Your task to perform on an android device: turn off priority inbox in the gmail app Image 0: 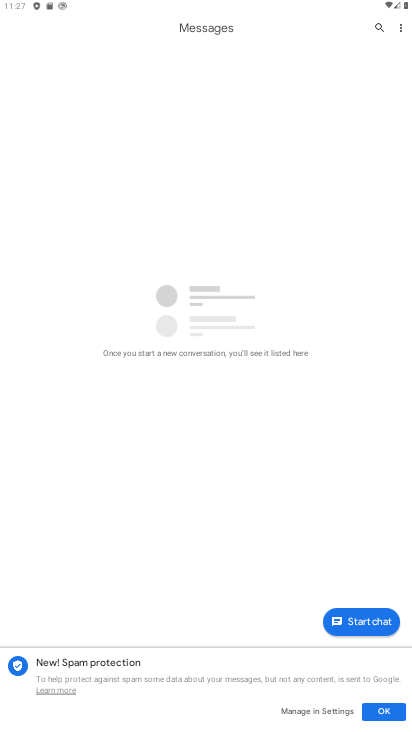
Step 0: press home button
Your task to perform on an android device: turn off priority inbox in the gmail app Image 1: 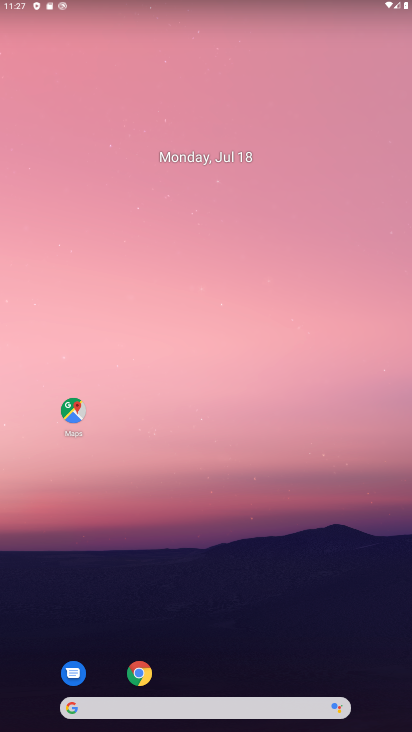
Step 1: drag from (292, 653) to (239, 1)
Your task to perform on an android device: turn off priority inbox in the gmail app Image 2: 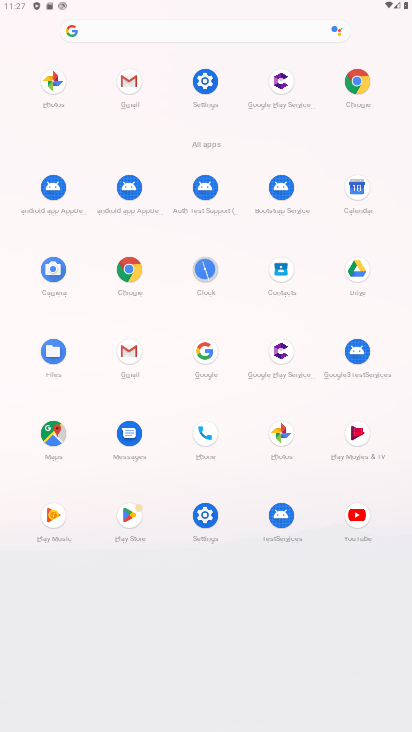
Step 2: click (127, 82)
Your task to perform on an android device: turn off priority inbox in the gmail app Image 3: 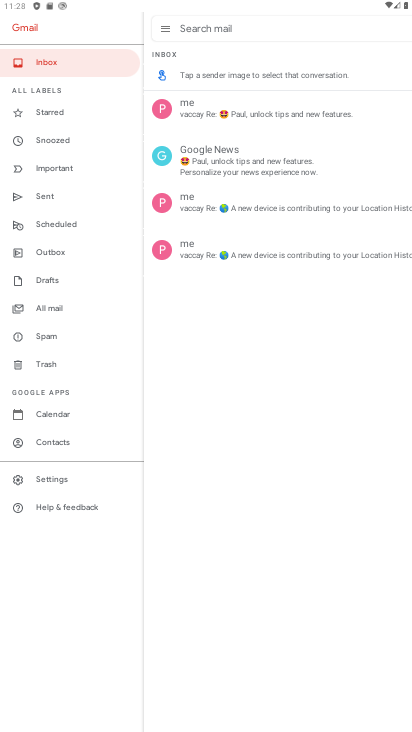
Step 3: click (80, 472)
Your task to perform on an android device: turn off priority inbox in the gmail app Image 4: 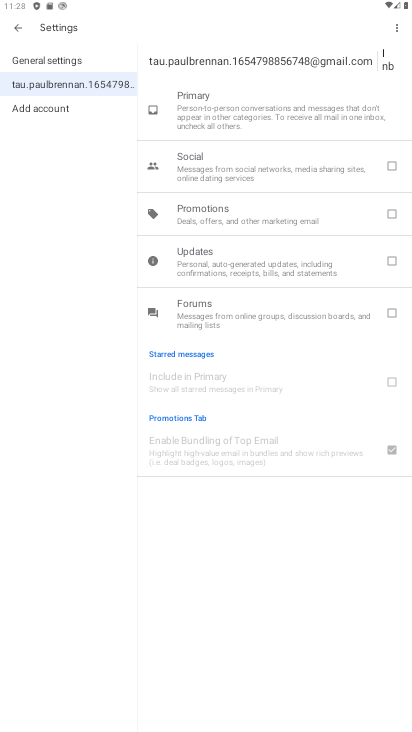
Step 4: click (94, 84)
Your task to perform on an android device: turn off priority inbox in the gmail app Image 5: 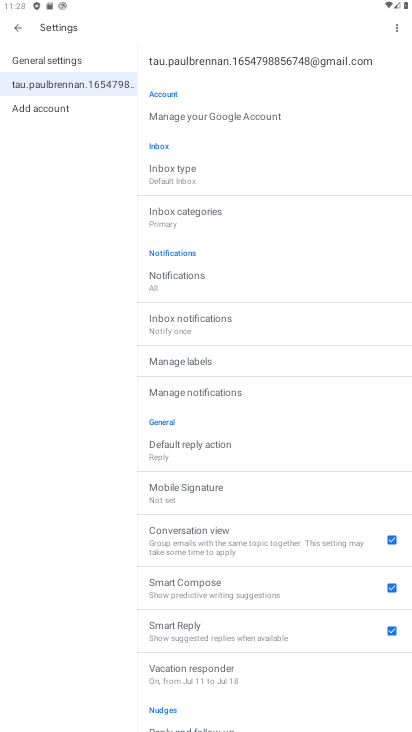
Step 5: click (224, 178)
Your task to perform on an android device: turn off priority inbox in the gmail app Image 6: 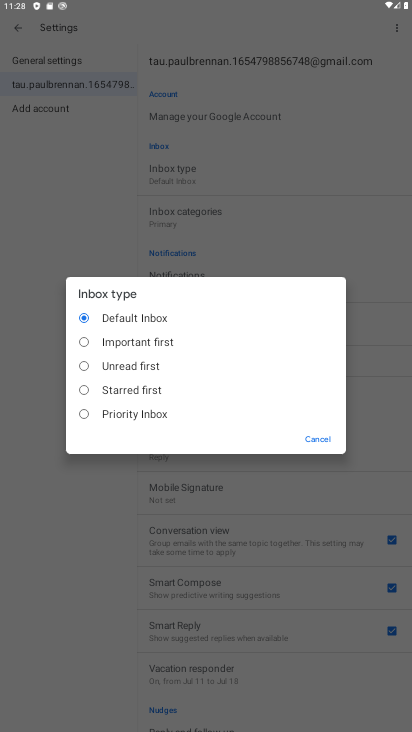
Step 6: task complete